Your task to perform on an android device: Go to display settings Image 0: 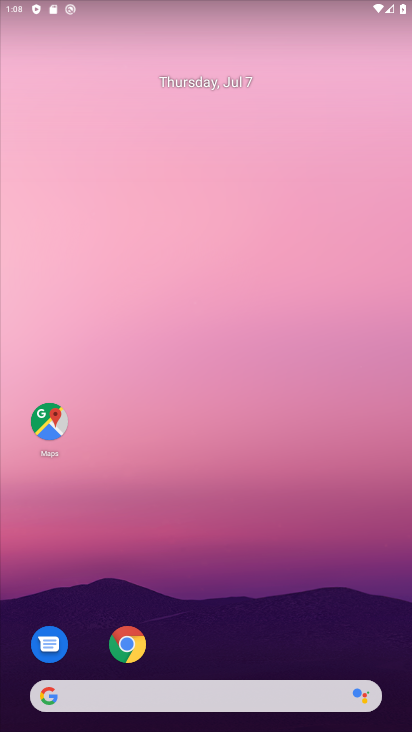
Step 0: drag from (194, 688) to (179, 155)
Your task to perform on an android device: Go to display settings Image 1: 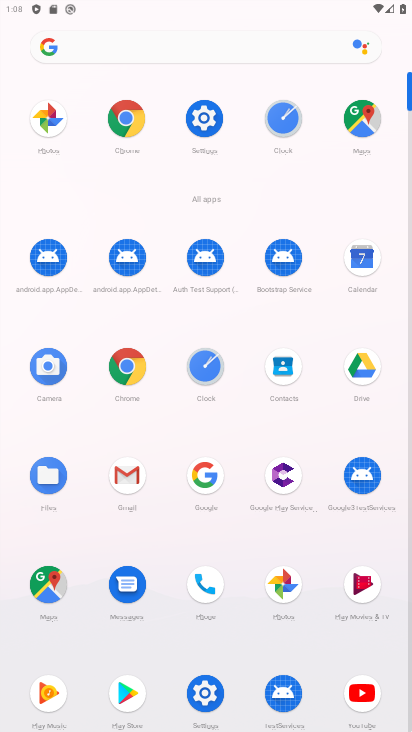
Step 1: click (201, 136)
Your task to perform on an android device: Go to display settings Image 2: 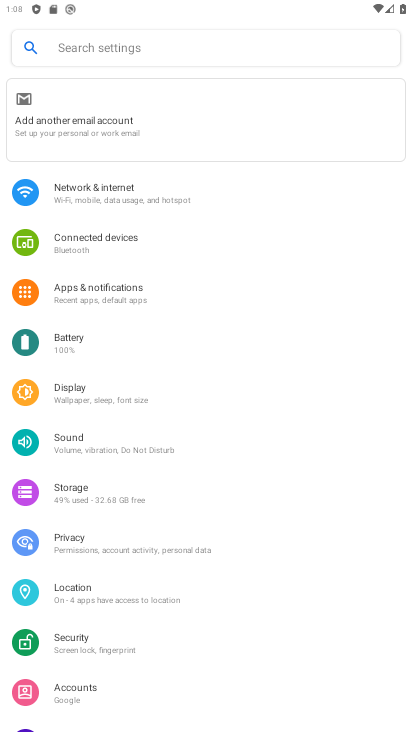
Step 2: click (87, 405)
Your task to perform on an android device: Go to display settings Image 3: 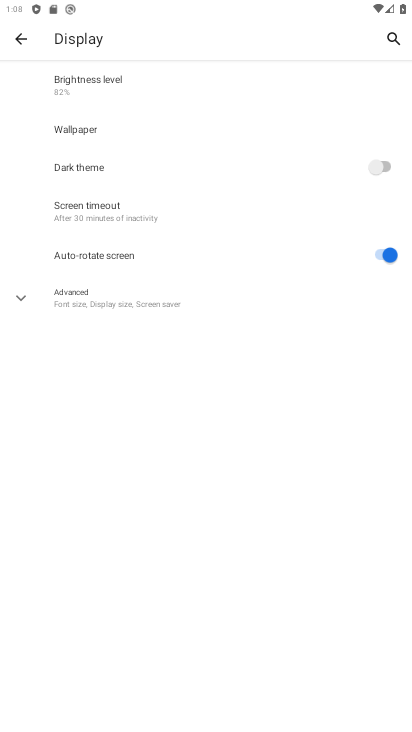
Step 3: task complete